Your task to perform on an android device: toggle improve location accuracy Image 0: 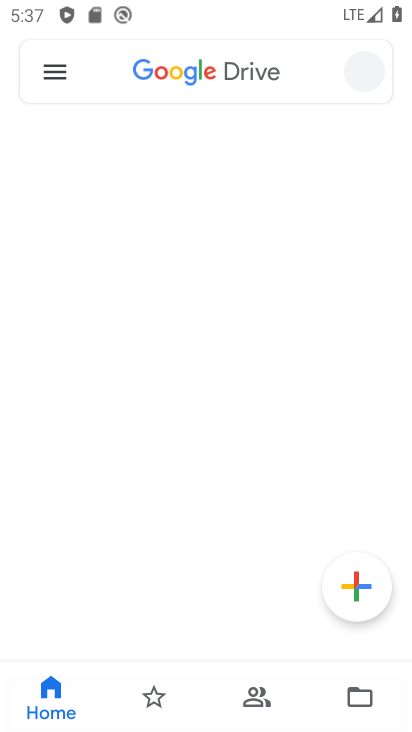
Step 0: drag from (190, 522) to (169, 299)
Your task to perform on an android device: toggle improve location accuracy Image 1: 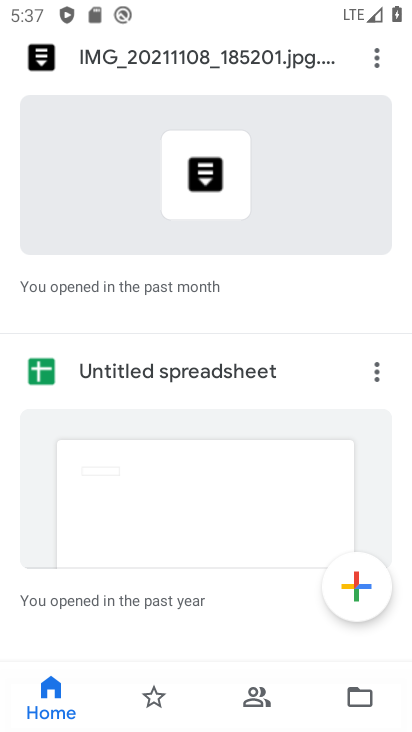
Step 1: drag from (232, 21) to (254, 582)
Your task to perform on an android device: toggle improve location accuracy Image 2: 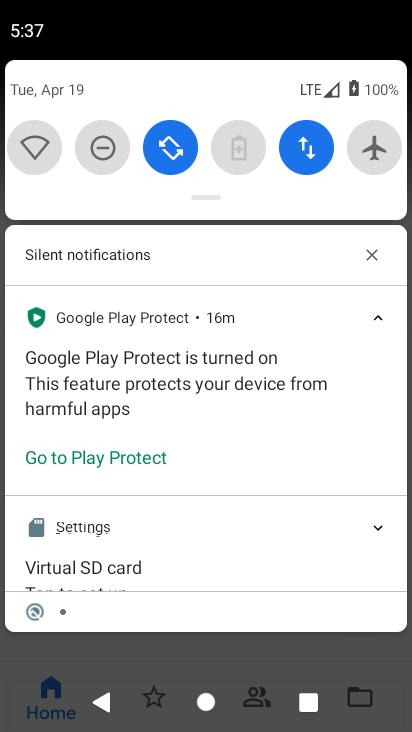
Step 2: drag from (181, 100) to (212, 686)
Your task to perform on an android device: toggle improve location accuracy Image 3: 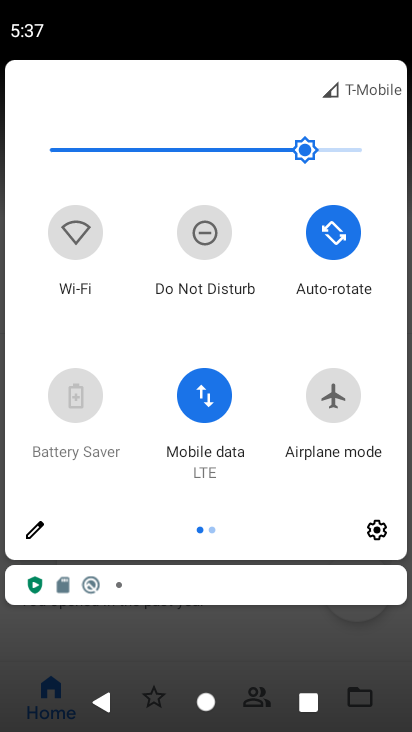
Step 3: click (370, 543)
Your task to perform on an android device: toggle improve location accuracy Image 4: 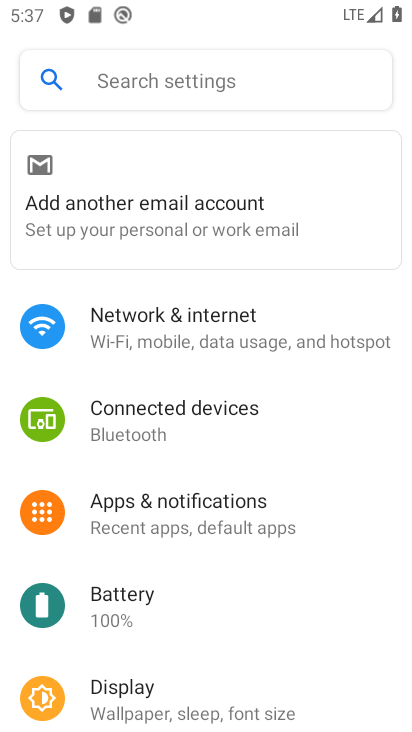
Step 4: drag from (130, 617) to (143, 218)
Your task to perform on an android device: toggle improve location accuracy Image 5: 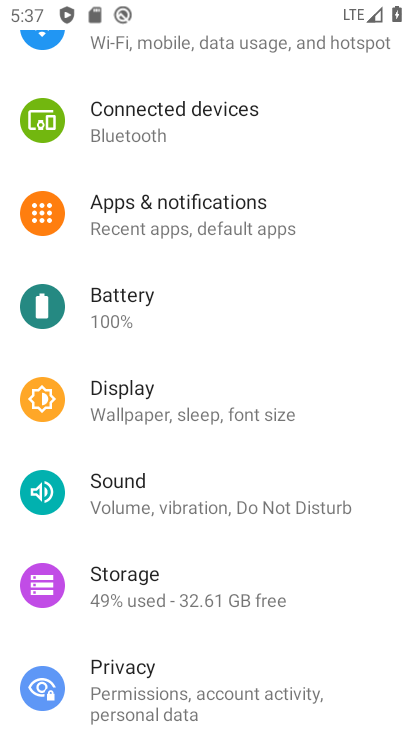
Step 5: drag from (187, 648) to (198, 230)
Your task to perform on an android device: toggle improve location accuracy Image 6: 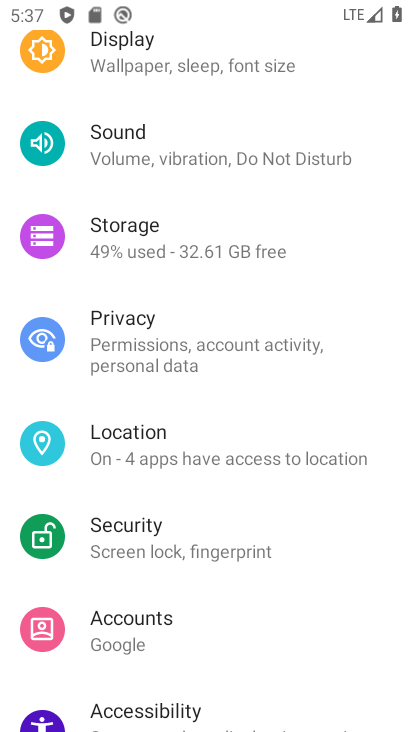
Step 6: click (175, 439)
Your task to perform on an android device: toggle improve location accuracy Image 7: 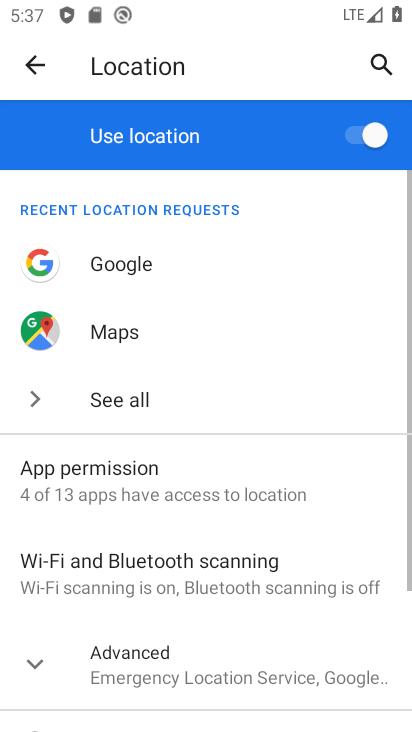
Step 7: drag from (192, 659) to (211, 244)
Your task to perform on an android device: toggle improve location accuracy Image 8: 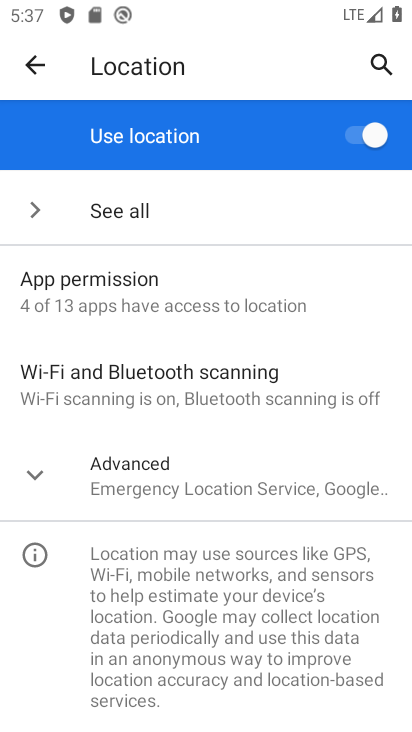
Step 8: click (174, 459)
Your task to perform on an android device: toggle improve location accuracy Image 9: 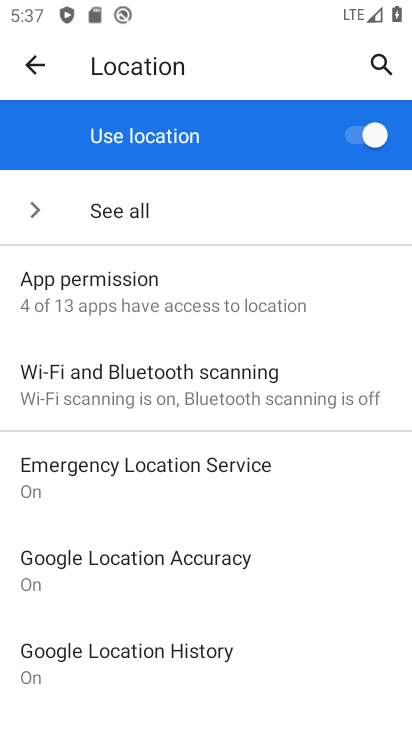
Step 9: click (171, 554)
Your task to perform on an android device: toggle improve location accuracy Image 10: 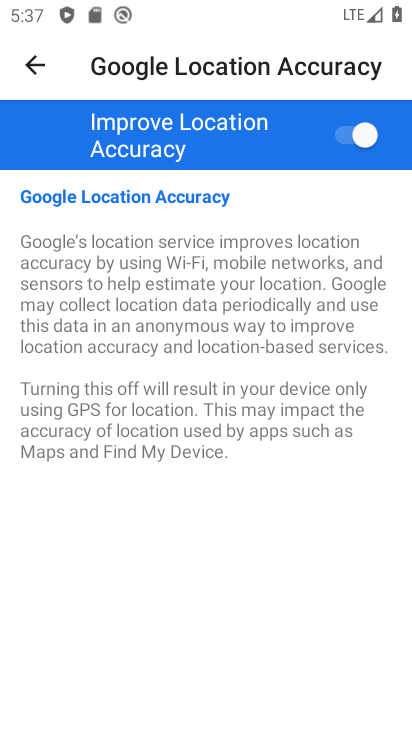
Step 10: click (346, 135)
Your task to perform on an android device: toggle improve location accuracy Image 11: 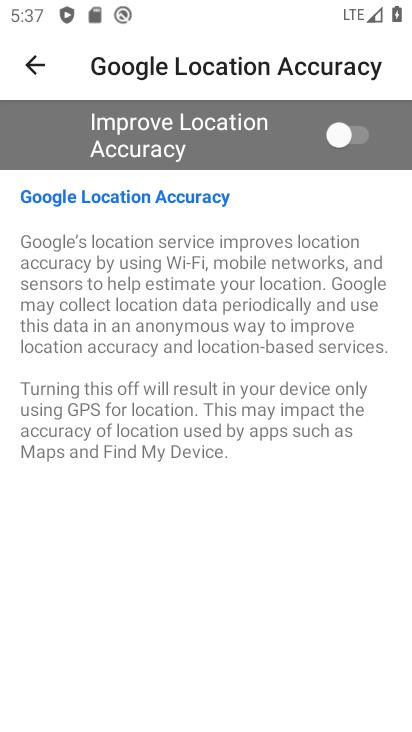
Step 11: click (346, 135)
Your task to perform on an android device: toggle improve location accuracy Image 12: 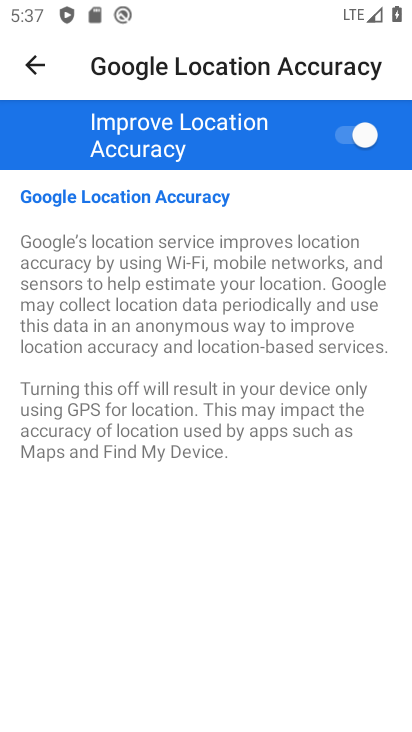
Step 12: task complete